Your task to perform on an android device: turn on the 24-hour format for clock Image 0: 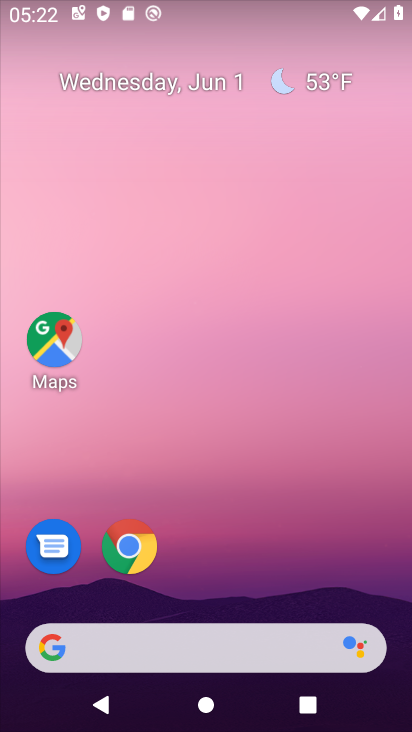
Step 0: drag from (271, 513) to (204, 121)
Your task to perform on an android device: turn on the 24-hour format for clock Image 1: 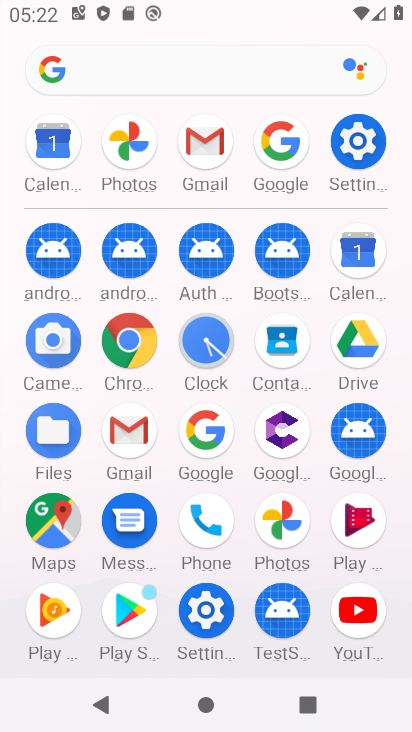
Step 1: click (206, 330)
Your task to perform on an android device: turn on the 24-hour format for clock Image 2: 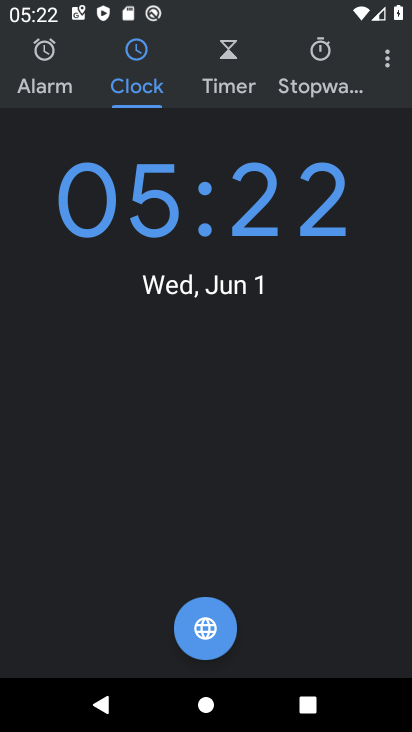
Step 2: click (386, 57)
Your task to perform on an android device: turn on the 24-hour format for clock Image 3: 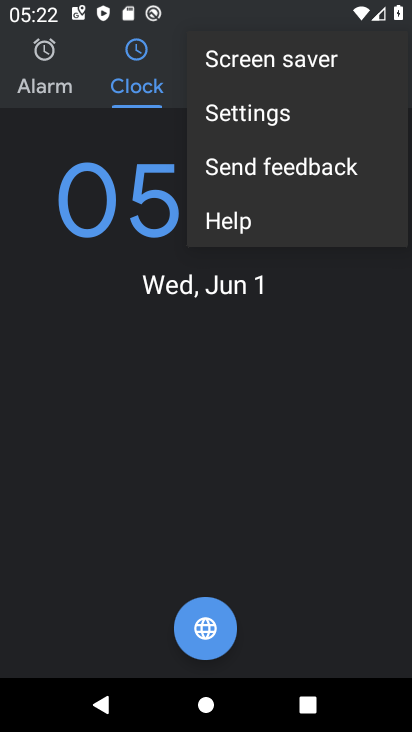
Step 3: click (259, 125)
Your task to perform on an android device: turn on the 24-hour format for clock Image 4: 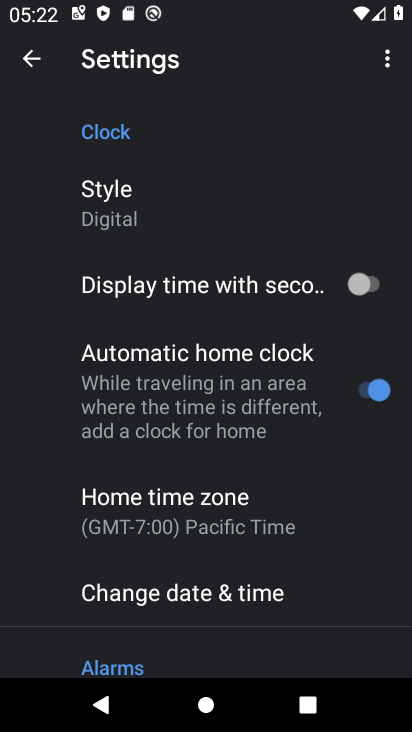
Step 4: click (193, 589)
Your task to perform on an android device: turn on the 24-hour format for clock Image 5: 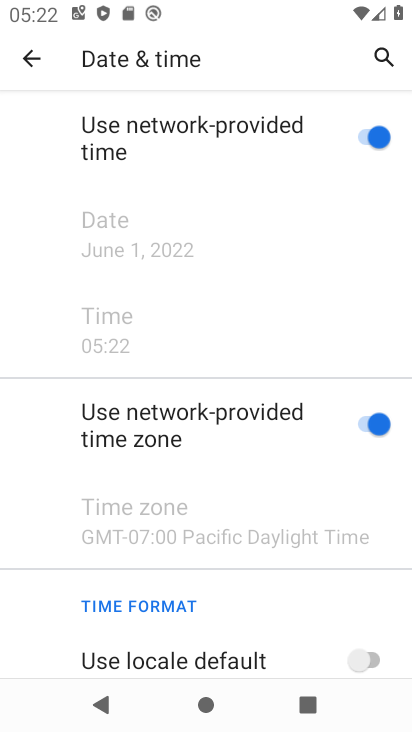
Step 5: task complete